Your task to perform on an android device: check android version Image 0: 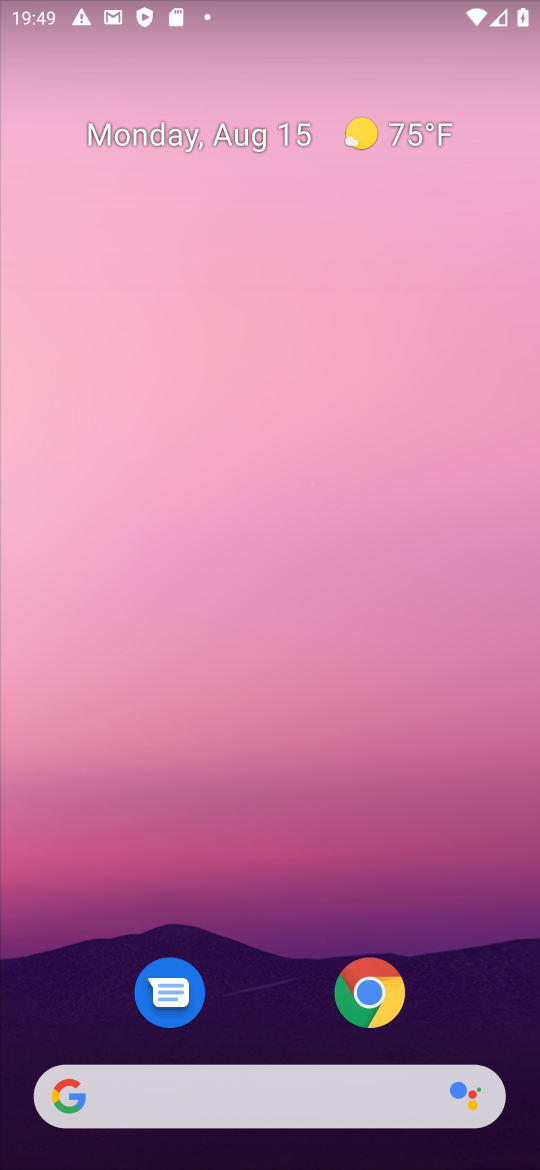
Step 0: drag from (295, 1090) to (422, 2)
Your task to perform on an android device: check android version Image 1: 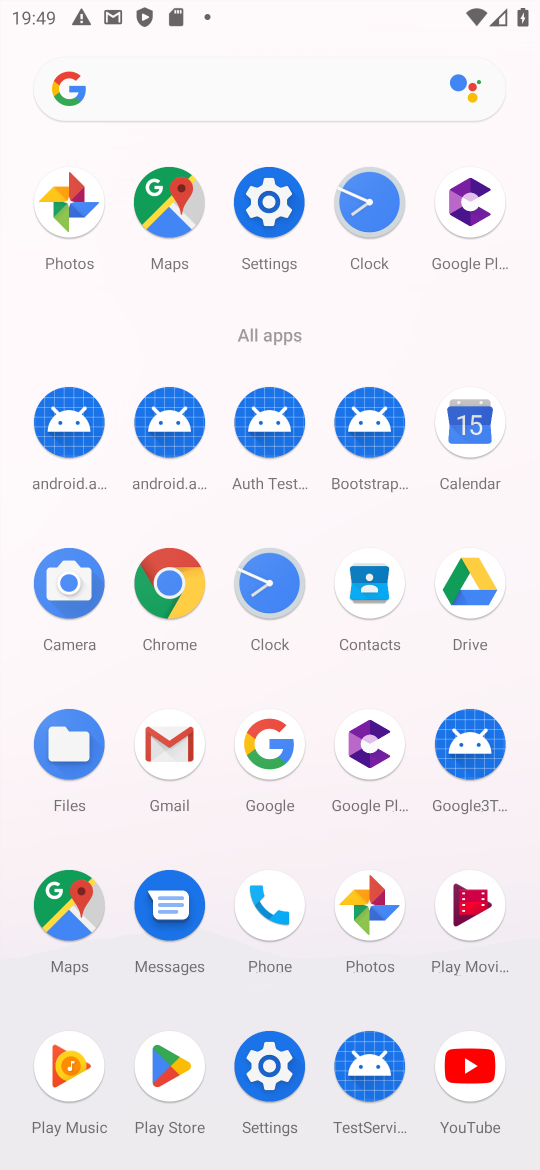
Step 1: drag from (270, 1068) to (311, 597)
Your task to perform on an android device: check android version Image 2: 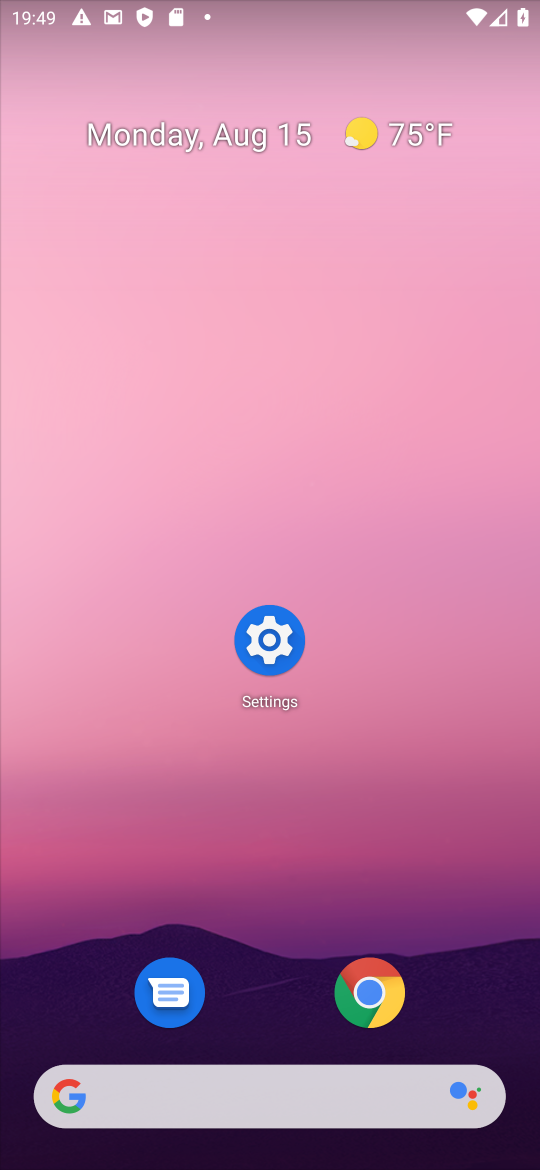
Step 2: drag from (262, 635) to (411, 716)
Your task to perform on an android device: check android version Image 3: 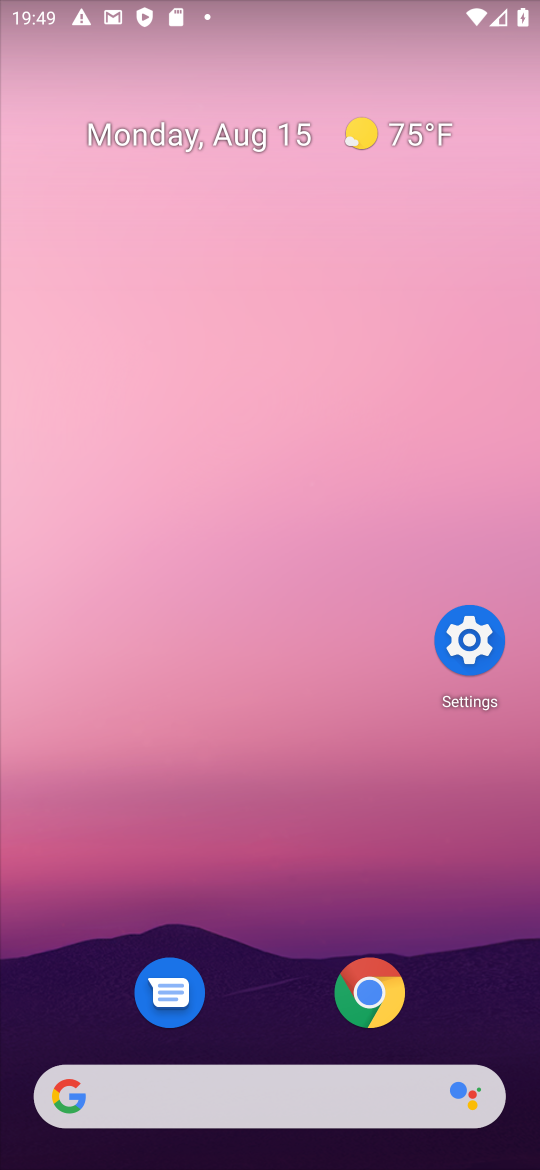
Step 3: click (468, 643)
Your task to perform on an android device: check android version Image 4: 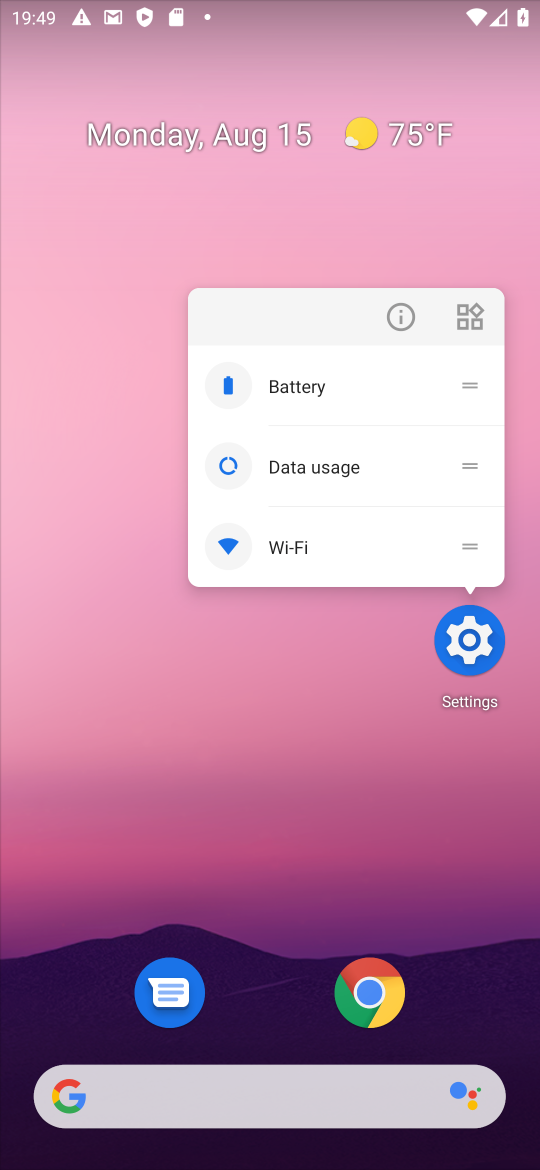
Step 4: click (468, 646)
Your task to perform on an android device: check android version Image 5: 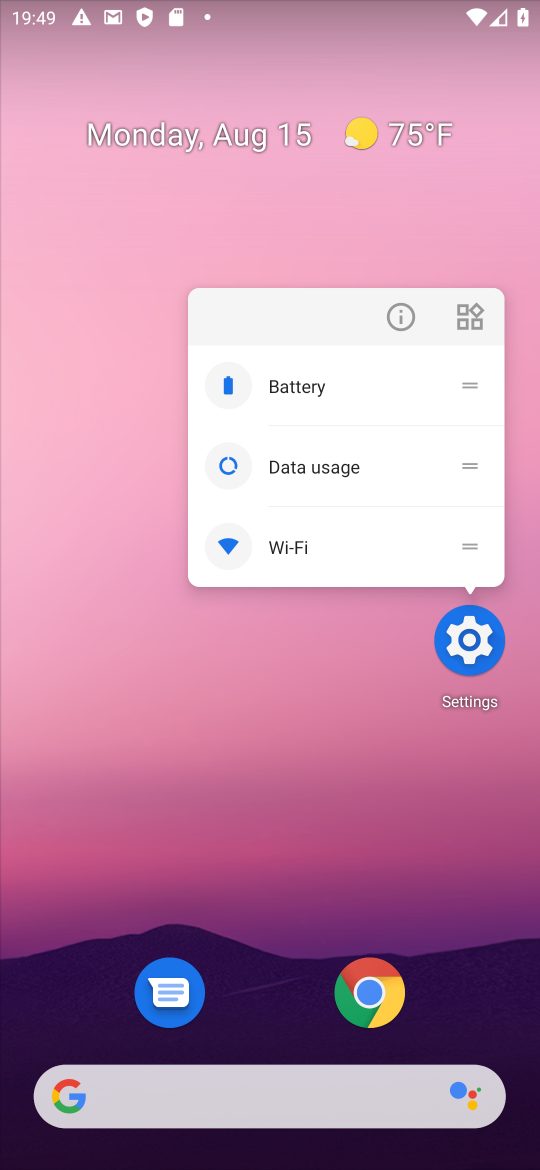
Step 5: click (468, 647)
Your task to perform on an android device: check android version Image 6: 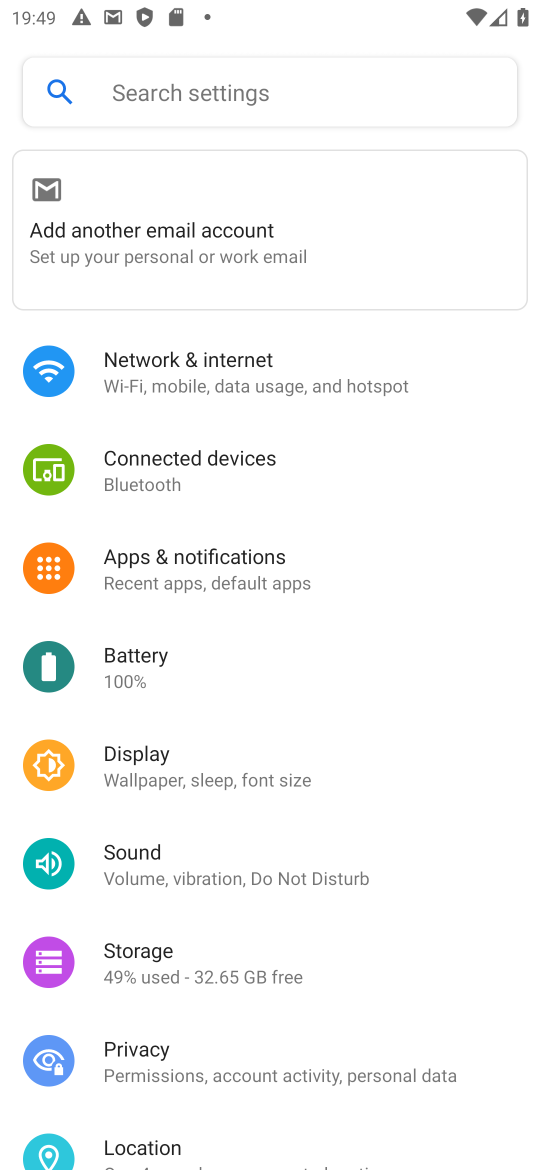
Step 6: drag from (235, 1106) to (481, 160)
Your task to perform on an android device: check android version Image 7: 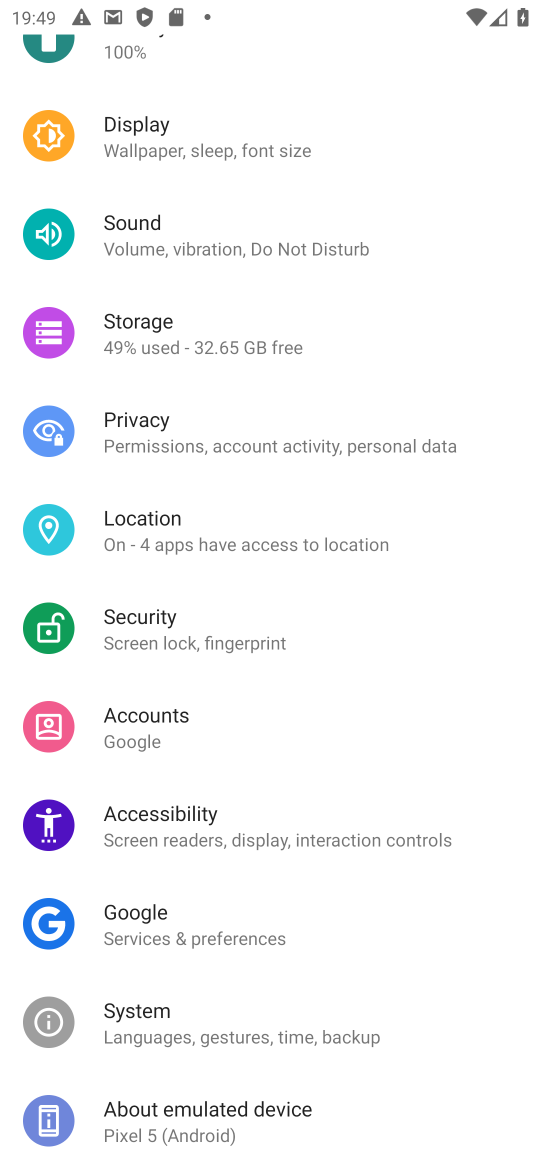
Step 7: drag from (361, 1032) to (522, 144)
Your task to perform on an android device: check android version Image 8: 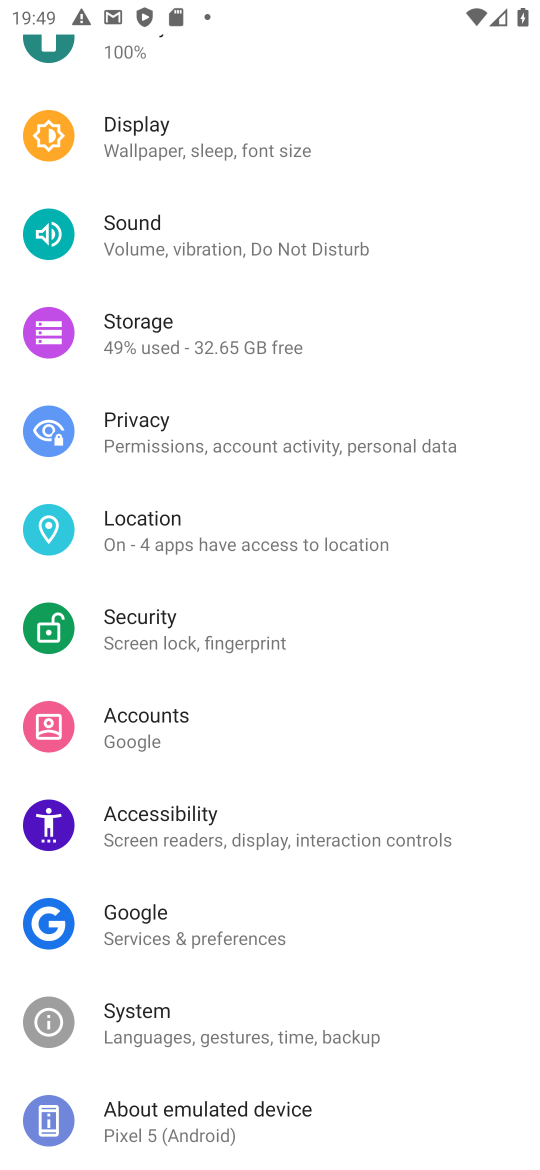
Step 8: click (221, 1130)
Your task to perform on an android device: check android version Image 9: 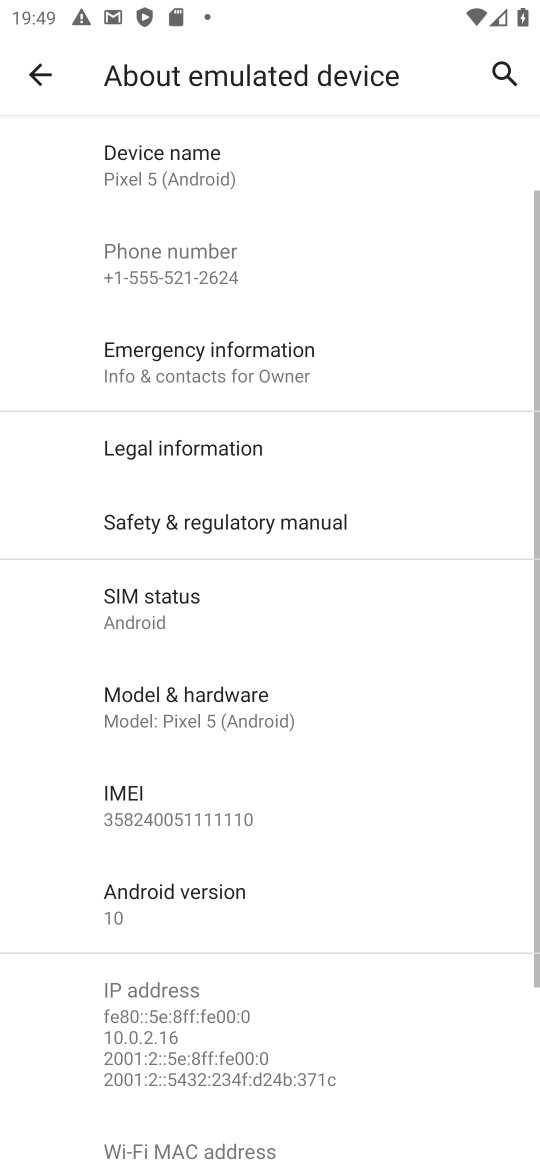
Step 9: drag from (318, 988) to (492, 518)
Your task to perform on an android device: check android version Image 10: 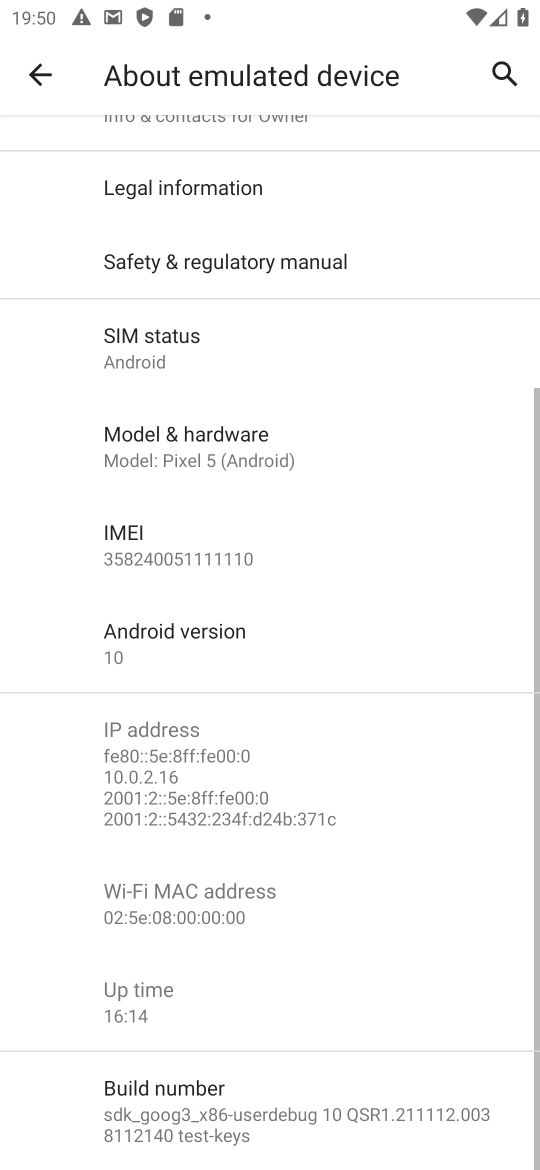
Step 10: click (207, 625)
Your task to perform on an android device: check android version Image 11: 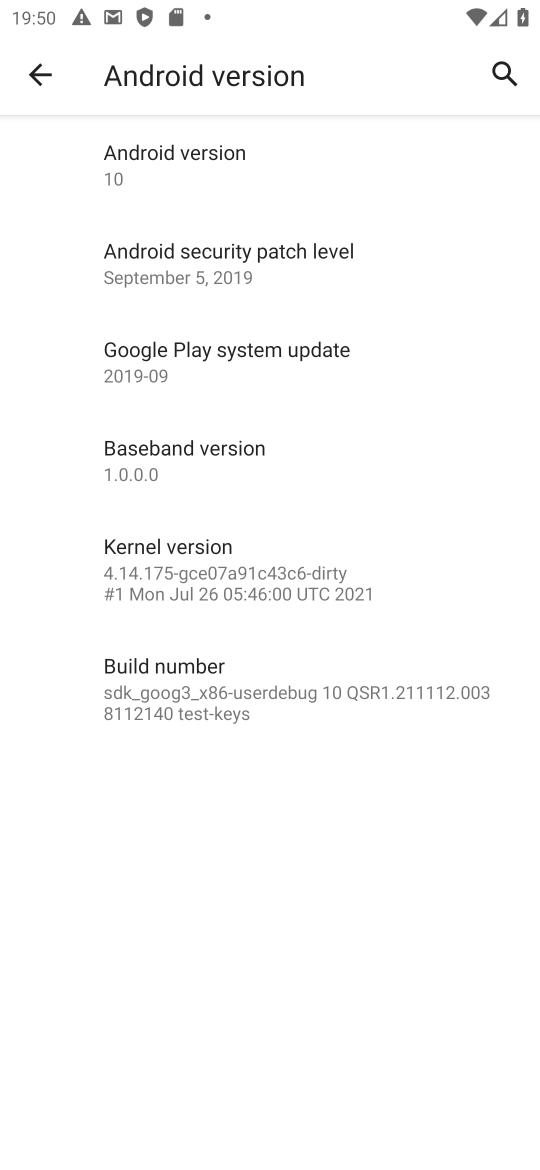
Step 11: task complete